Your task to perform on an android device: delete browsing data in the chrome app Image 0: 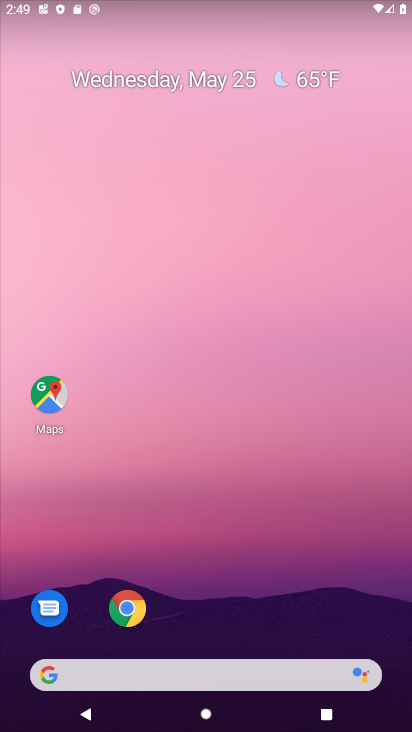
Step 0: click (124, 605)
Your task to perform on an android device: delete browsing data in the chrome app Image 1: 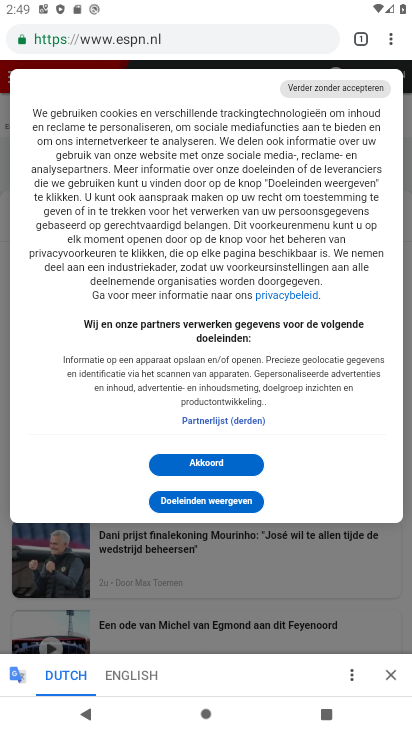
Step 1: click (389, 41)
Your task to perform on an android device: delete browsing data in the chrome app Image 2: 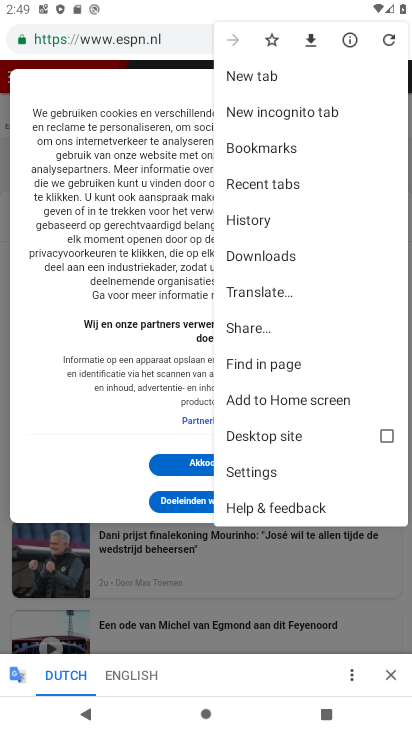
Step 2: click (247, 470)
Your task to perform on an android device: delete browsing data in the chrome app Image 3: 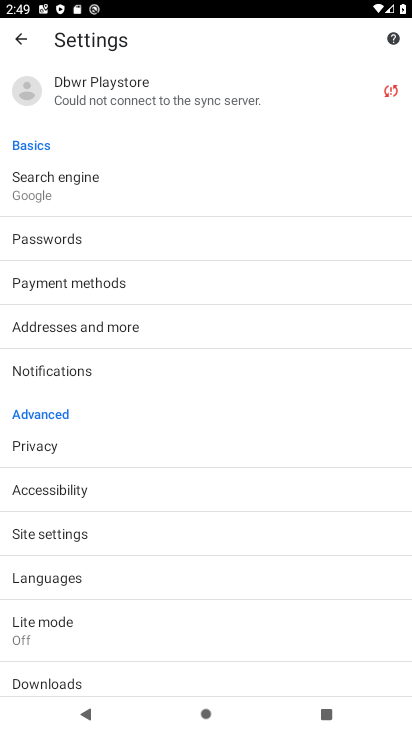
Step 3: click (37, 445)
Your task to perform on an android device: delete browsing data in the chrome app Image 4: 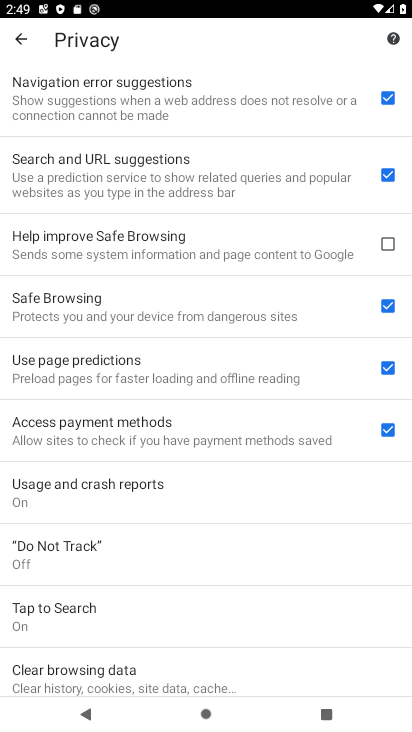
Step 4: drag from (151, 564) to (147, 143)
Your task to perform on an android device: delete browsing data in the chrome app Image 5: 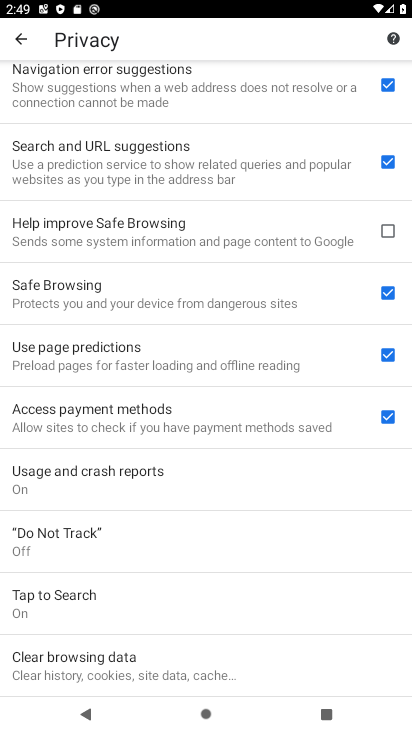
Step 5: drag from (117, 575) to (95, 394)
Your task to perform on an android device: delete browsing data in the chrome app Image 6: 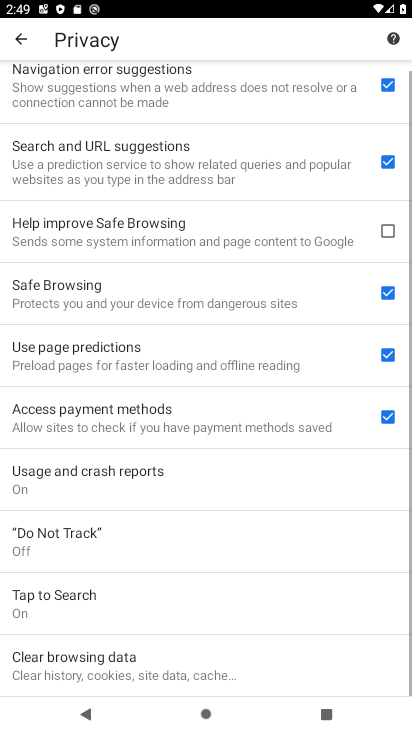
Step 6: click (55, 669)
Your task to perform on an android device: delete browsing data in the chrome app Image 7: 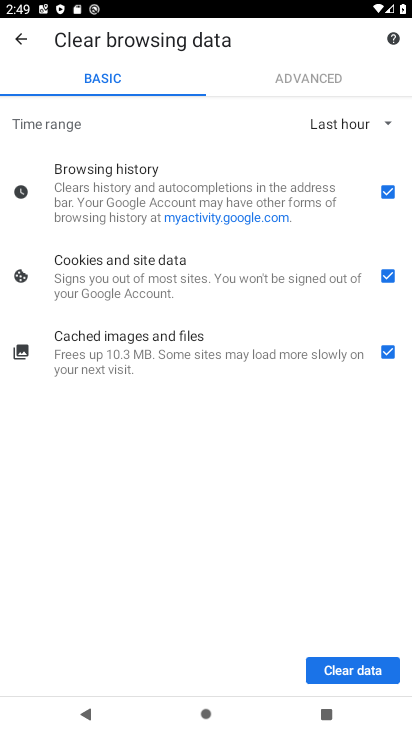
Step 7: click (384, 278)
Your task to perform on an android device: delete browsing data in the chrome app Image 8: 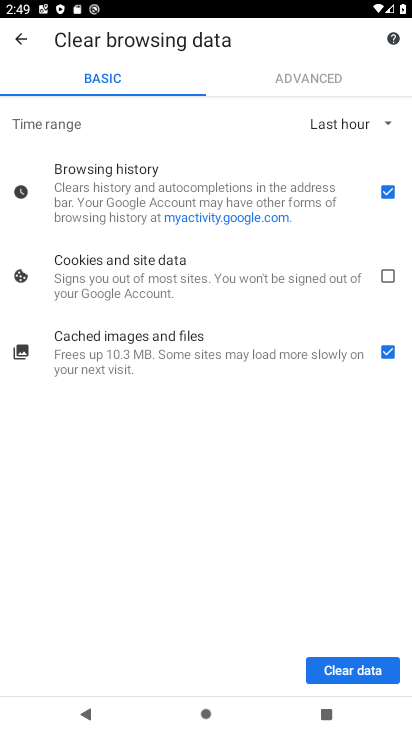
Step 8: click (386, 353)
Your task to perform on an android device: delete browsing data in the chrome app Image 9: 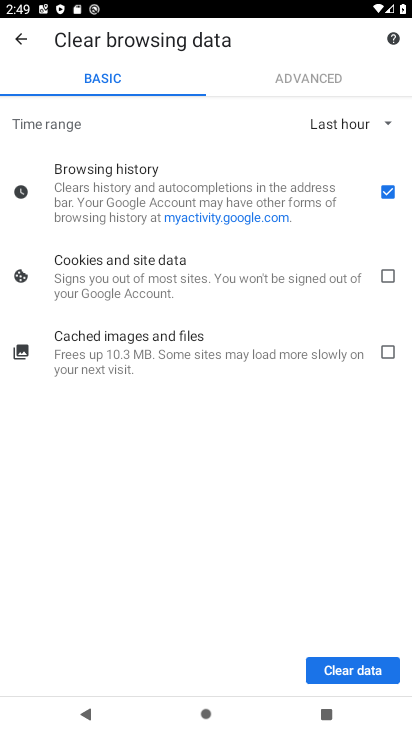
Step 9: click (350, 664)
Your task to perform on an android device: delete browsing data in the chrome app Image 10: 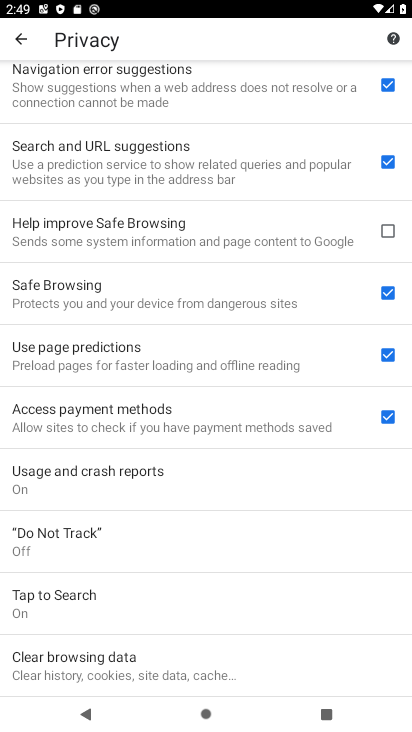
Step 10: task complete